Your task to perform on an android device: Open network settings Image 0: 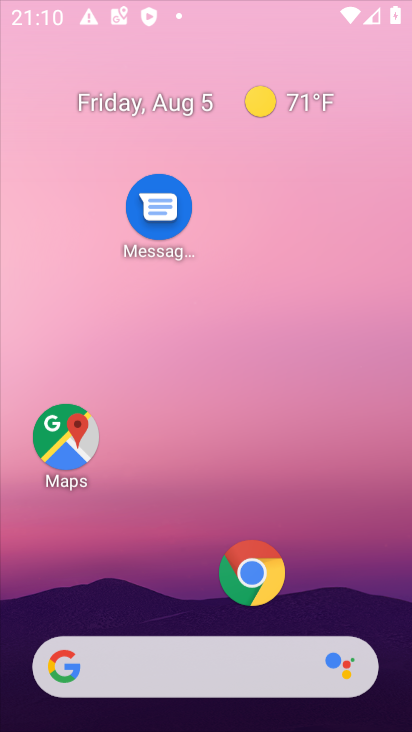
Step 0: press home button
Your task to perform on an android device: Open network settings Image 1: 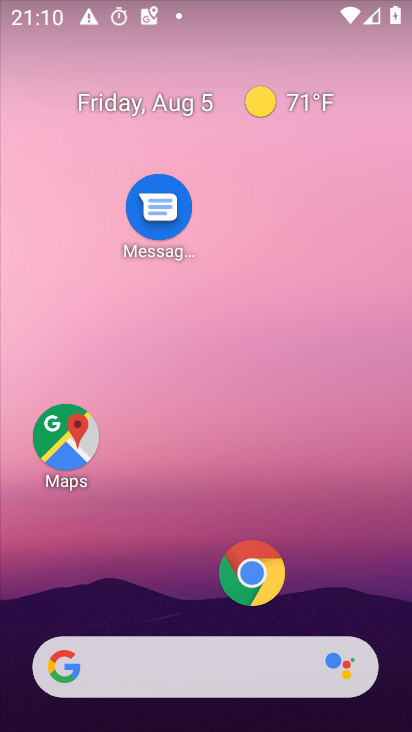
Step 1: drag from (190, 616) to (215, 20)
Your task to perform on an android device: Open network settings Image 2: 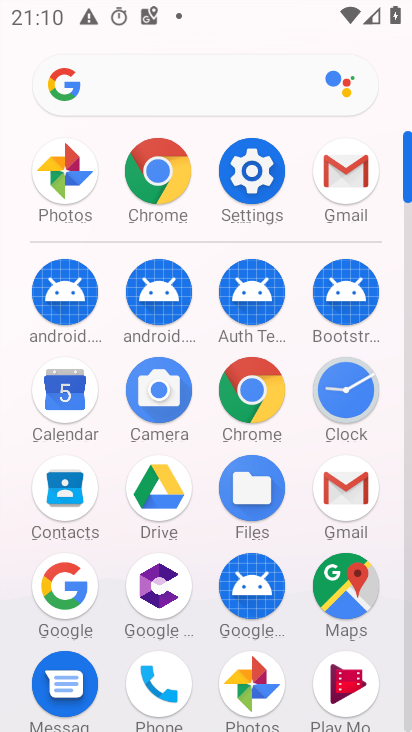
Step 2: click (249, 165)
Your task to perform on an android device: Open network settings Image 3: 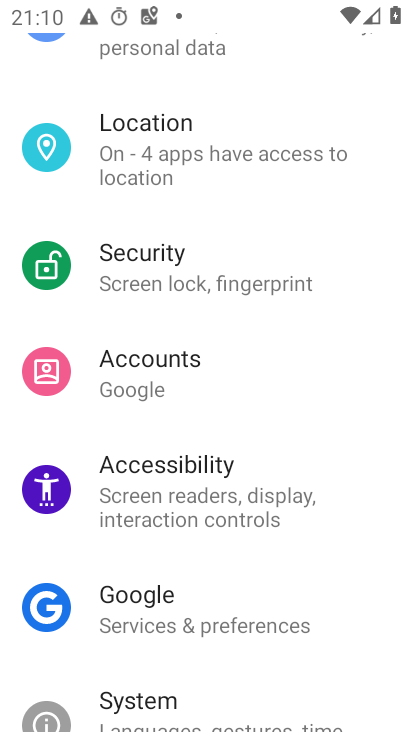
Step 3: drag from (206, 89) to (210, 623)
Your task to perform on an android device: Open network settings Image 4: 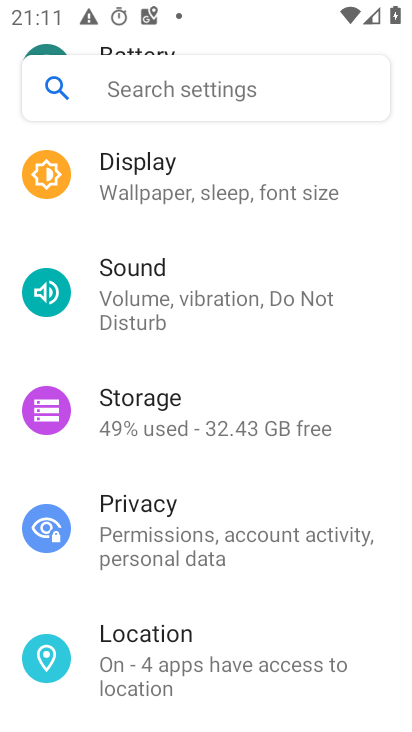
Step 4: drag from (208, 149) to (216, 692)
Your task to perform on an android device: Open network settings Image 5: 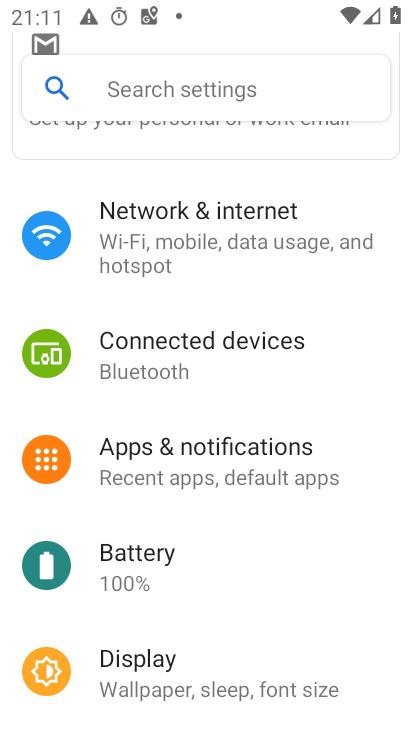
Step 5: click (211, 224)
Your task to perform on an android device: Open network settings Image 6: 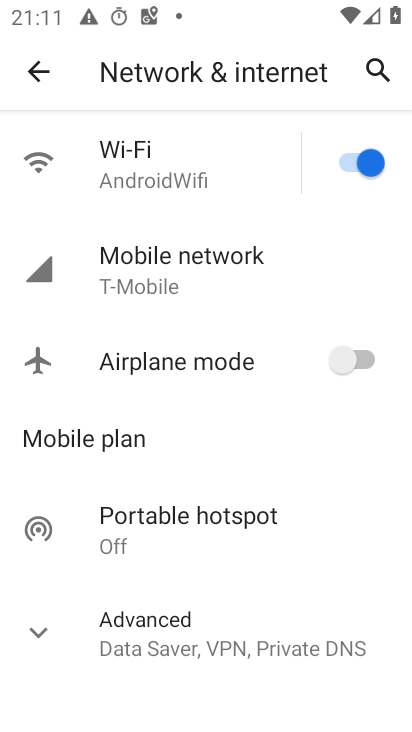
Step 6: click (41, 626)
Your task to perform on an android device: Open network settings Image 7: 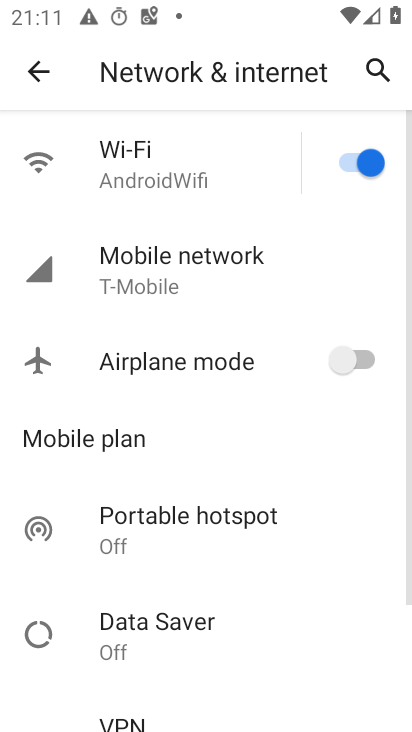
Step 7: task complete